Your task to perform on an android device: choose inbox layout in the gmail app Image 0: 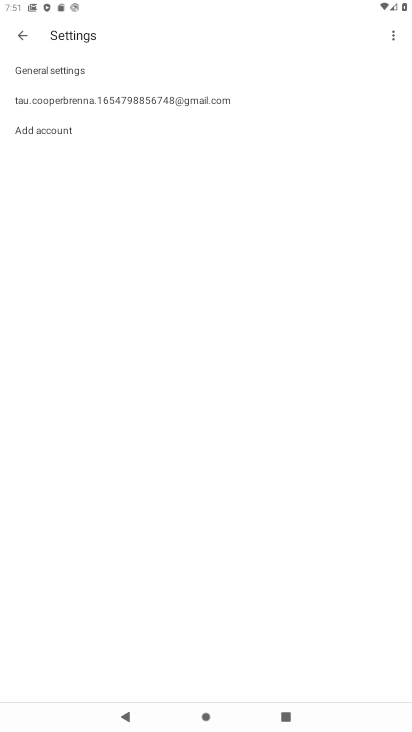
Step 0: press home button
Your task to perform on an android device: choose inbox layout in the gmail app Image 1: 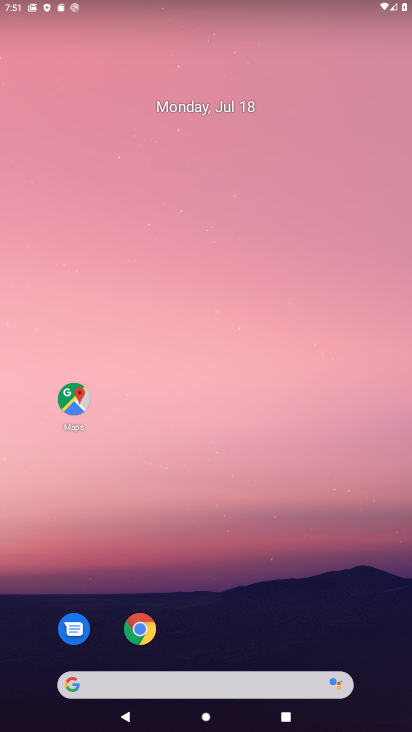
Step 1: drag from (248, 603) to (202, 116)
Your task to perform on an android device: choose inbox layout in the gmail app Image 2: 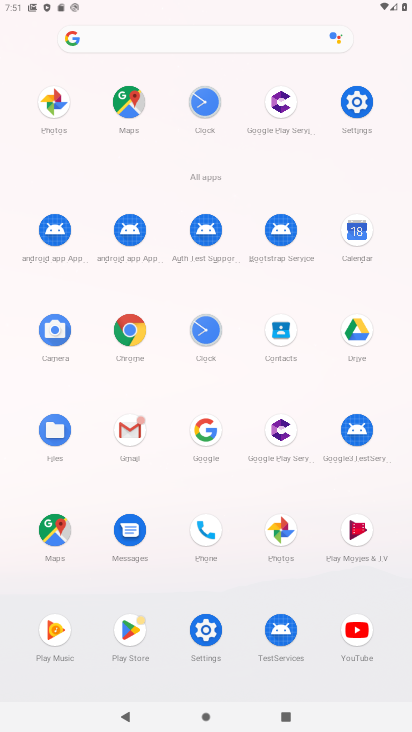
Step 2: click (134, 429)
Your task to perform on an android device: choose inbox layout in the gmail app Image 3: 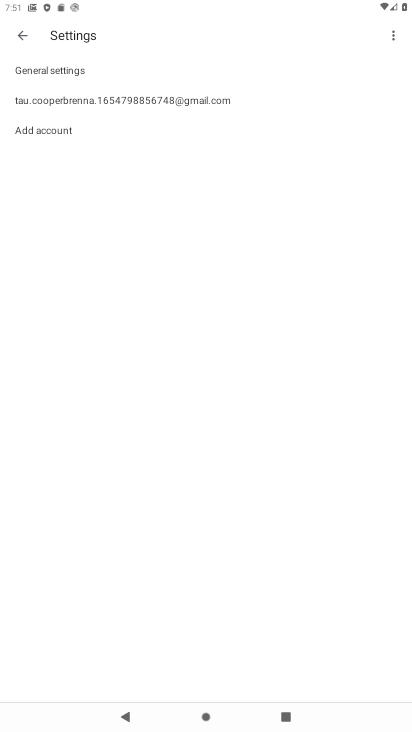
Step 3: click (53, 95)
Your task to perform on an android device: choose inbox layout in the gmail app Image 4: 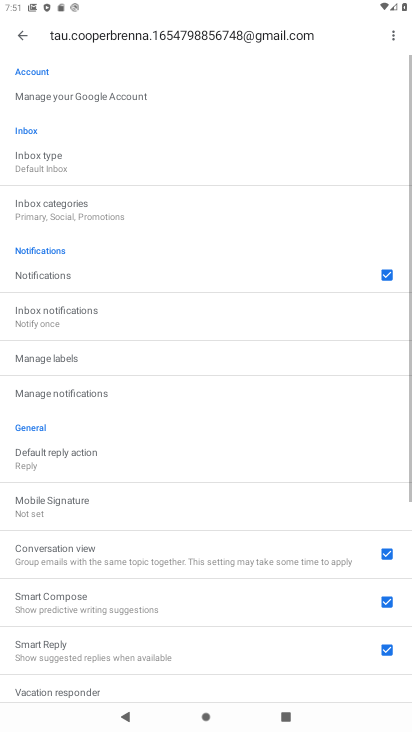
Step 4: click (89, 159)
Your task to perform on an android device: choose inbox layout in the gmail app Image 5: 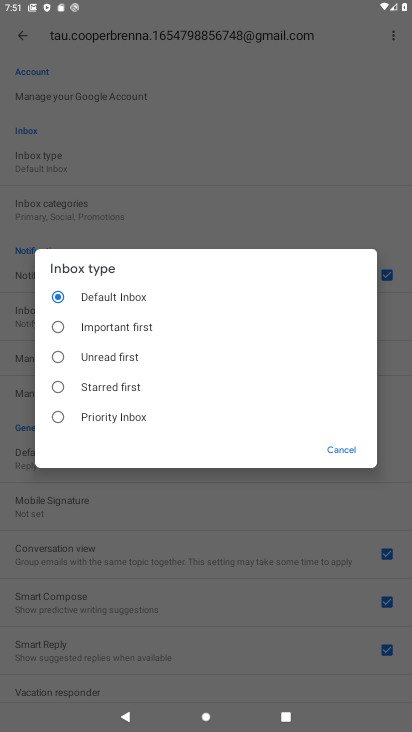
Step 5: click (93, 410)
Your task to perform on an android device: choose inbox layout in the gmail app Image 6: 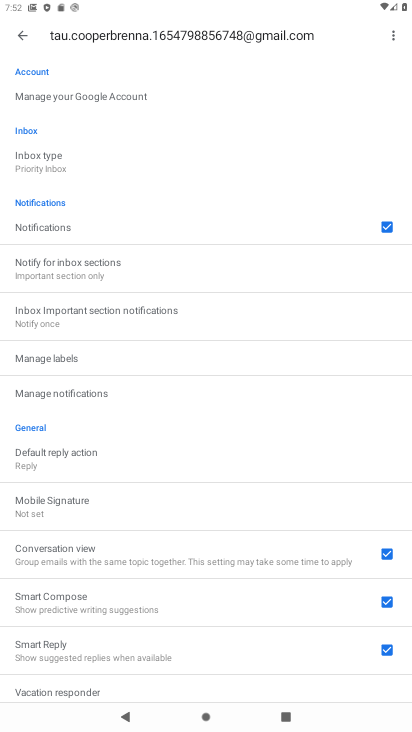
Step 6: task complete